Your task to perform on an android device: Show me popular games on the Play Store Image 0: 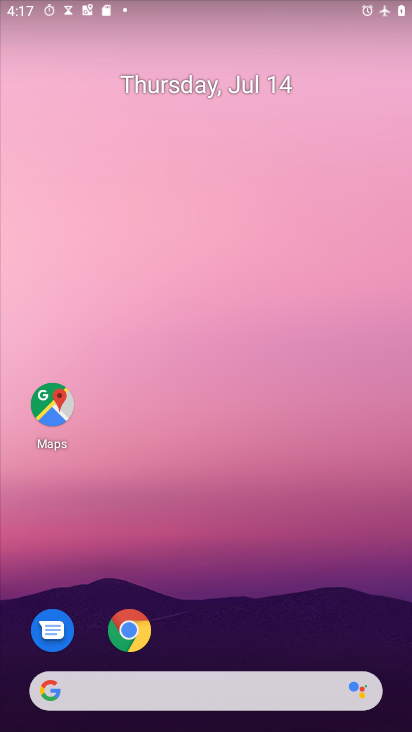
Step 0: drag from (206, 726) to (189, 307)
Your task to perform on an android device: Show me popular games on the Play Store Image 1: 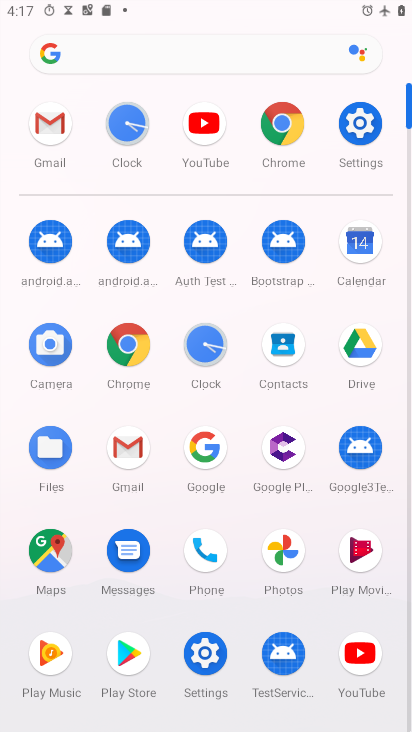
Step 1: click (136, 652)
Your task to perform on an android device: Show me popular games on the Play Store Image 2: 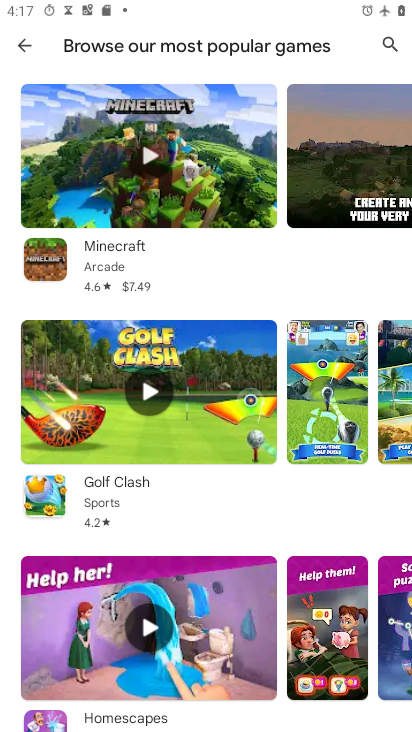
Step 2: task complete